Your task to perform on an android device: Go to Wikipedia Image 0: 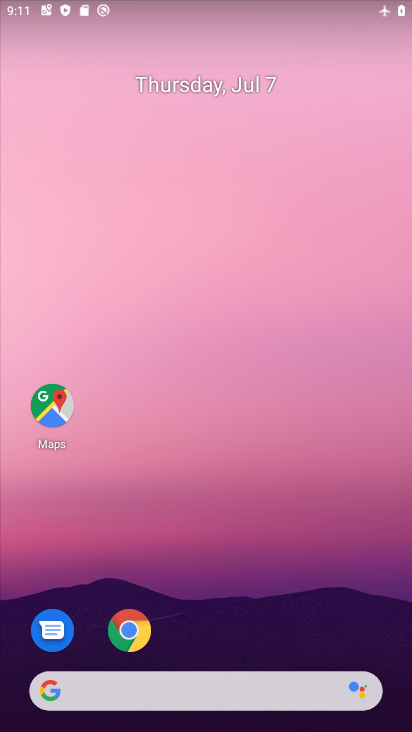
Step 0: click (121, 624)
Your task to perform on an android device: Go to Wikipedia Image 1: 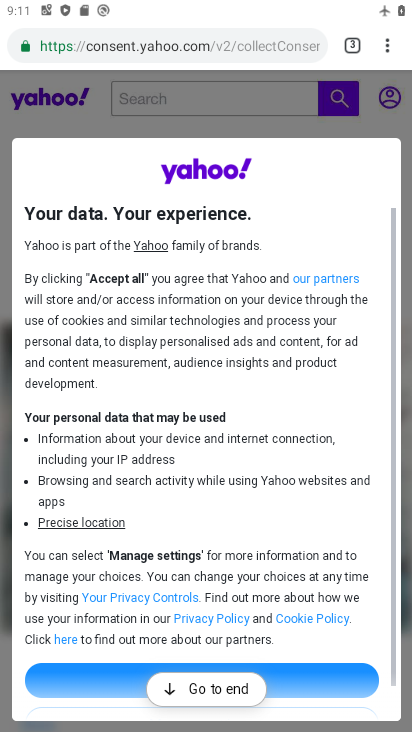
Step 1: click (352, 43)
Your task to perform on an android device: Go to Wikipedia Image 2: 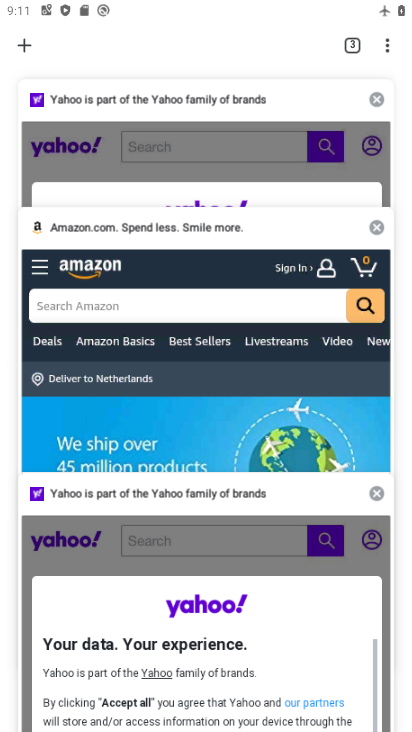
Step 2: click (25, 45)
Your task to perform on an android device: Go to Wikipedia Image 3: 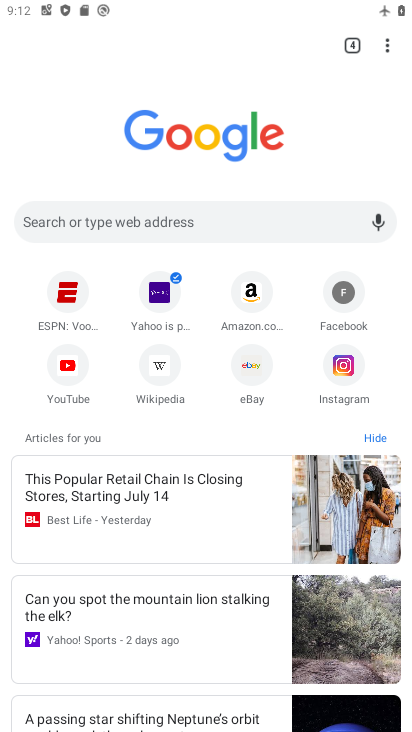
Step 3: click (167, 357)
Your task to perform on an android device: Go to Wikipedia Image 4: 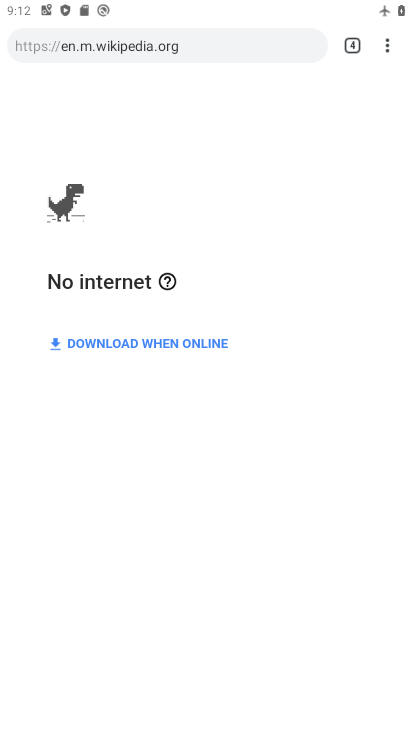
Step 4: task complete